Your task to perform on an android device: change alarm snooze length Image 0: 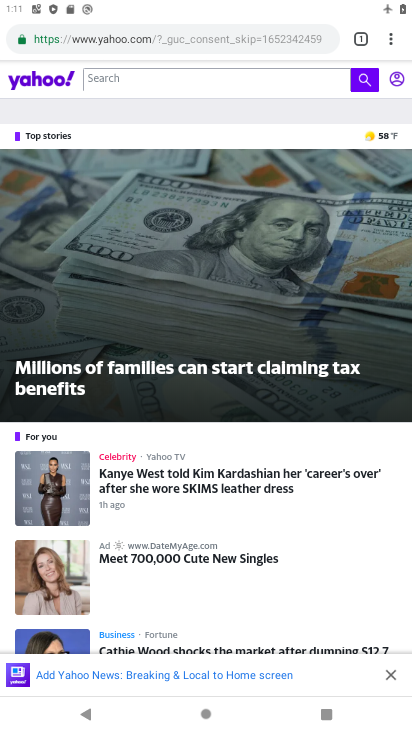
Step 0: press home button
Your task to perform on an android device: change alarm snooze length Image 1: 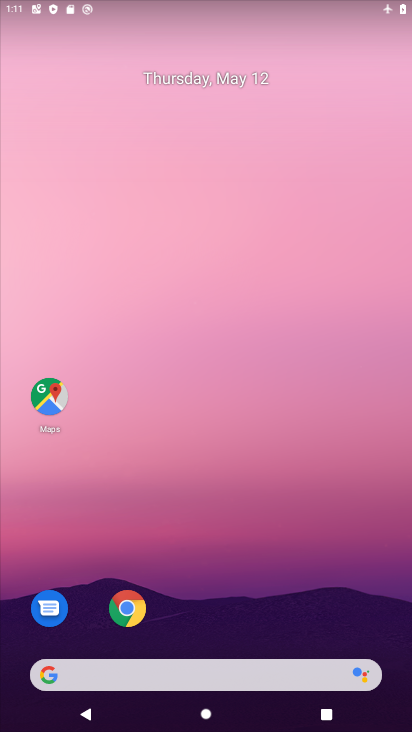
Step 1: drag from (268, 576) to (164, 10)
Your task to perform on an android device: change alarm snooze length Image 2: 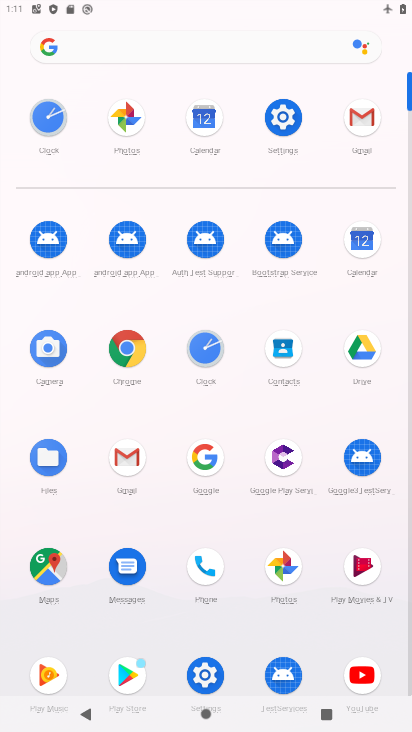
Step 2: click (52, 127)
Your task to perform on an android device: change alarm snooze length Image 3: 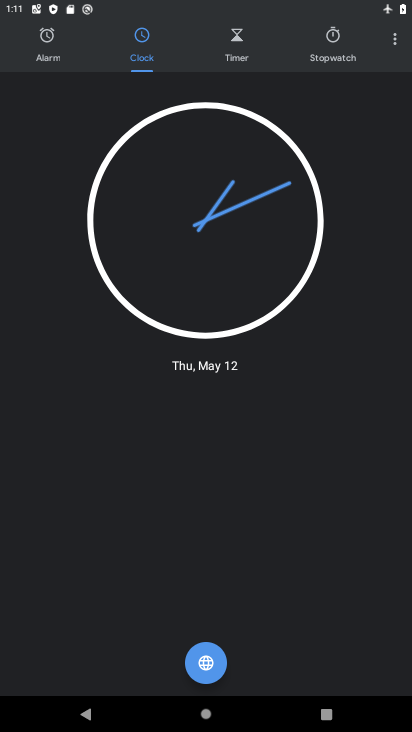
Step 3: click (398, 41)
Your task to perform on an android device: change alarm snooze length Image 4: 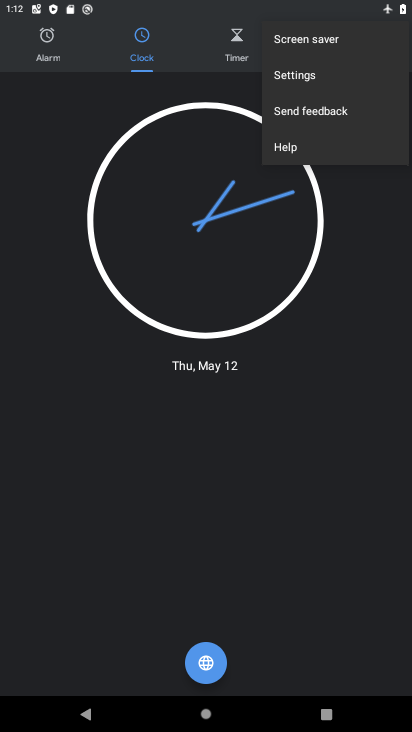
Step 4: click (309, 79)
Your task to perform on an android device: change alarm snooze length Image 5: 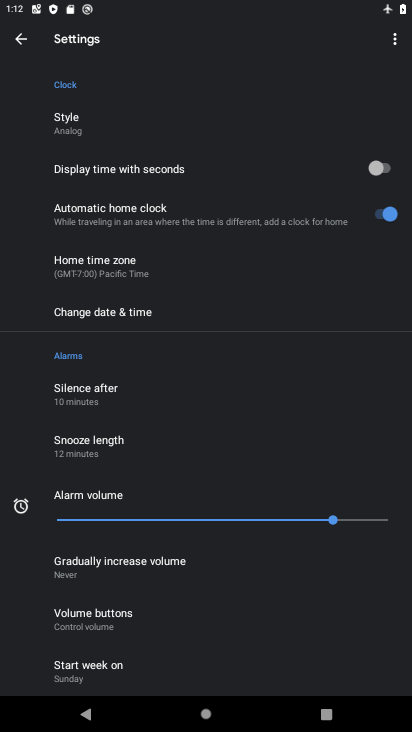
Step 5: click (105, 442)
Your task to perform on an android device: change alarm snooze length Image 6: 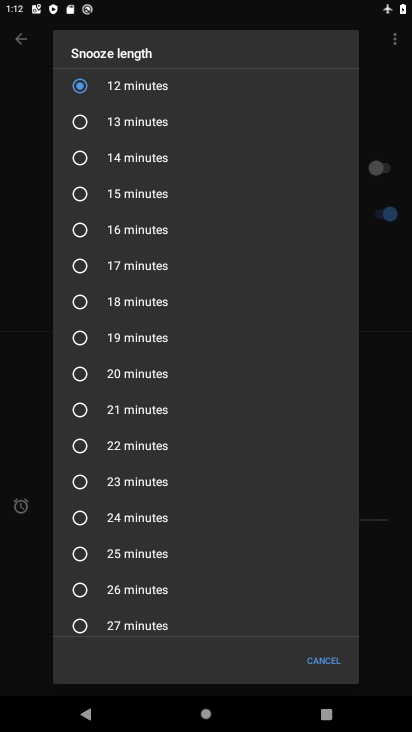
Step 6: click (80, 198)
Your task to perform on an android device: change alarm snooze length Image 7: 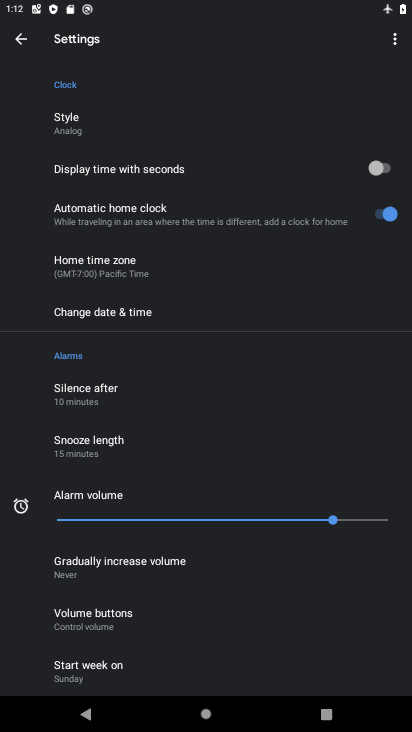
Step 7: task complete